Your task to perform on an android device: toggle priority inbox in the gmail app Image 0: 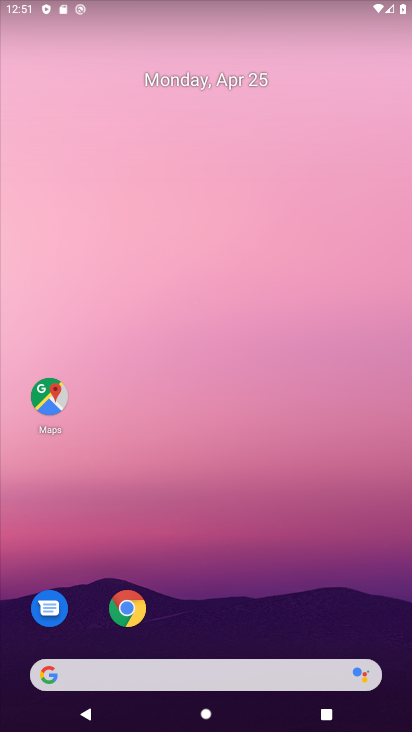
Step 0: drag from (270, 347) to (281, 140)
Your task to perform on an android device: toggle priority inbox in the gmail app Image 1: 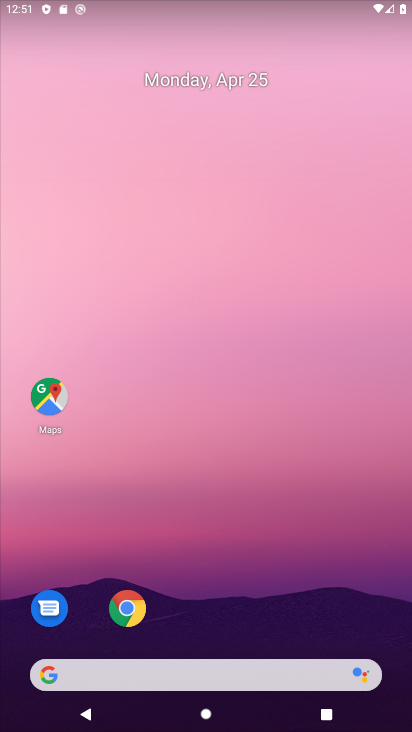
Step 1: drag from (200, 518) to (275, 178)
Your task to perform on an android device: toggle priority inbox in the gmail app Image 2: 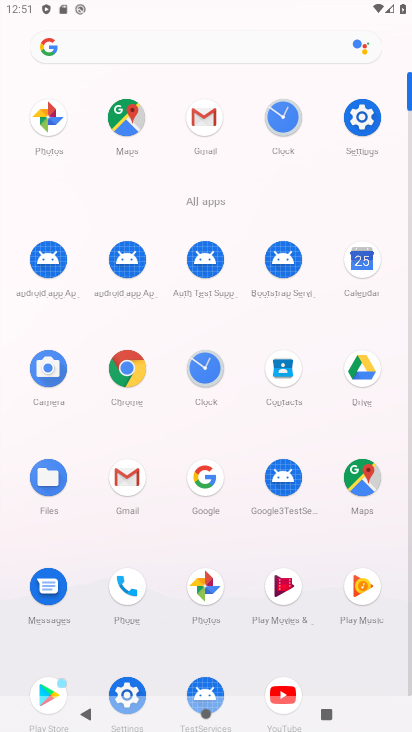
Step 2: click (204, 128)
Your task to perform on an android device: toggle priority inbox in the gmail app Image 3: 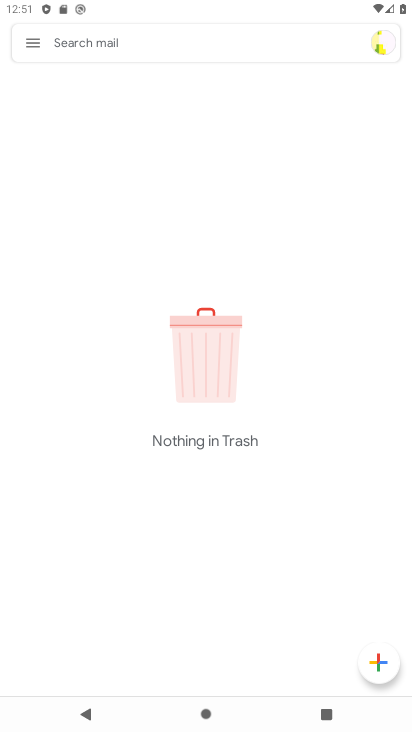
Step 3: click (39, 41)
Your task to perform on an android device: toggle priority inbox in the gmail app Image 4: 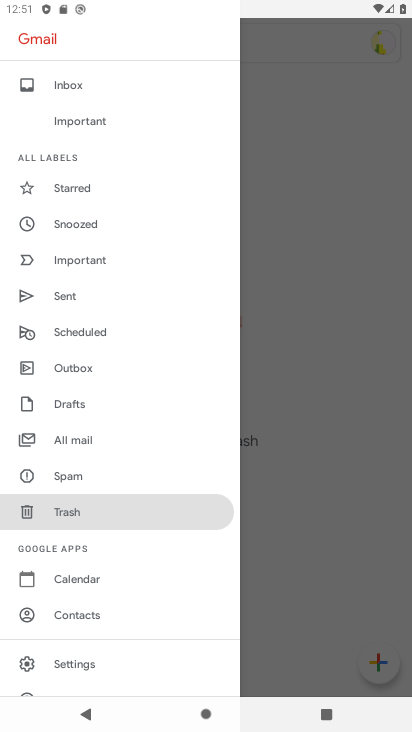
Step 4: click (110, 656)
Your task to perform on an android device: toggle priority inbox in the gmail app Image 5: 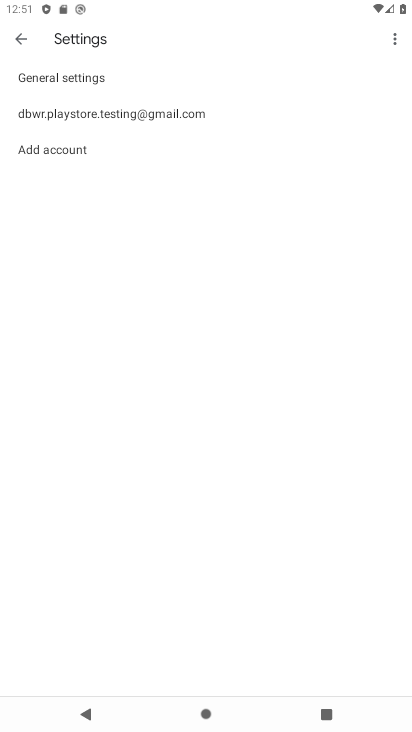
Step 5: click (166, 109)
Your task to perform on an android device: toggle priority inbox in the gmail app Image 6: 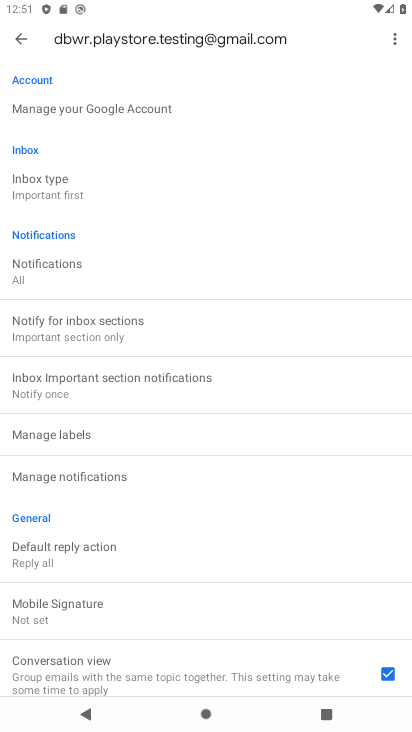
Step 6: click (85, 179)
Your task to perform on an android device: toggle priority inbox in the gmail app Image 7: 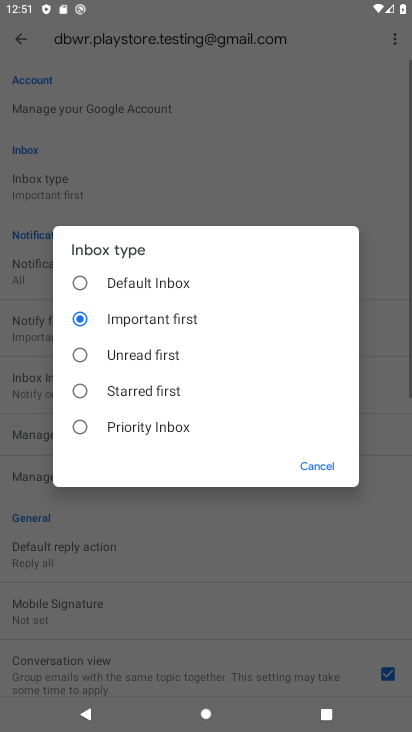
Step 7: click (132, 433)
Your task to perform on an android device: toggle priority inbox in the gmail app Image 8: 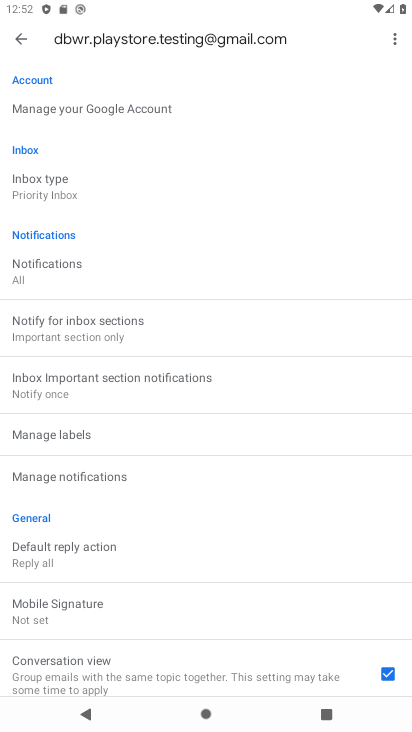
Step 8: task complete